Your task to perform on an android device: turn off sleep mode Image 0: 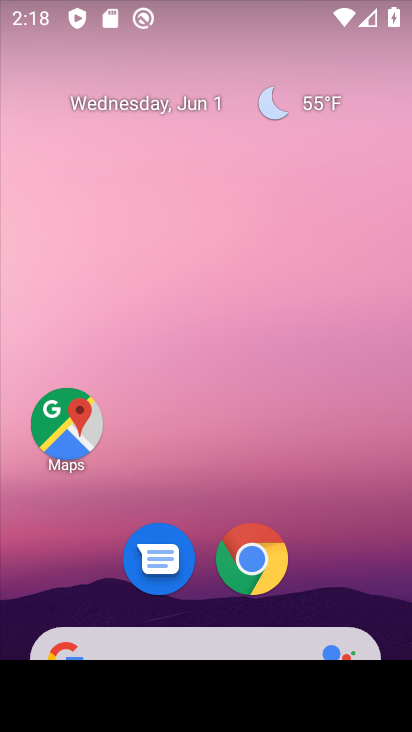
Step 0: task complete